Your task to perform on an android device: install app "HBO Max: Stream TV & Movies" Image 0: 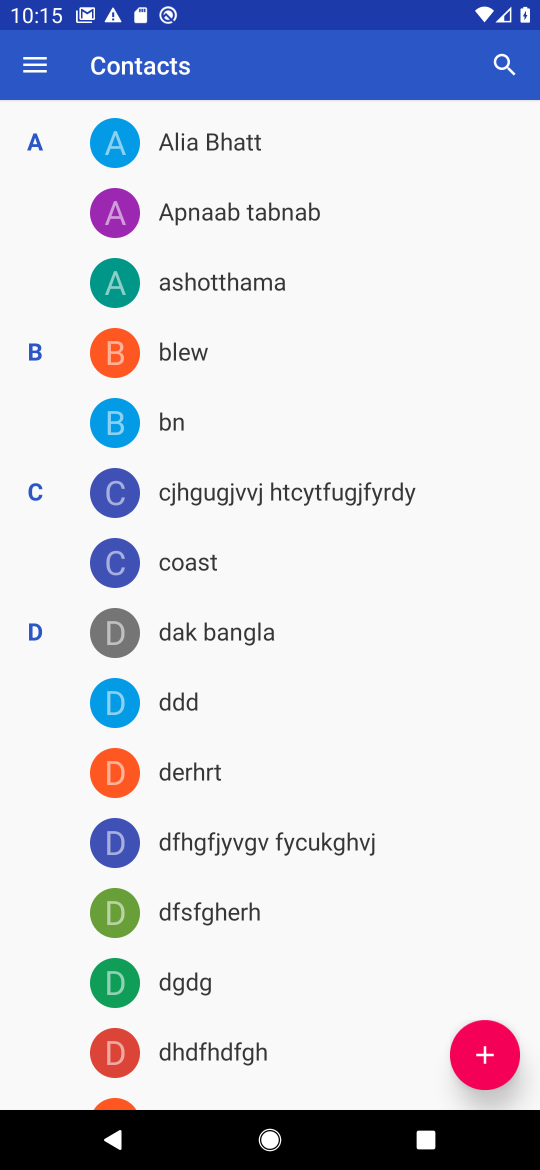
Step 0: press back button
Your task to perform on an android device: install app "HBO Max: Stream TV & Movies" Image 1: 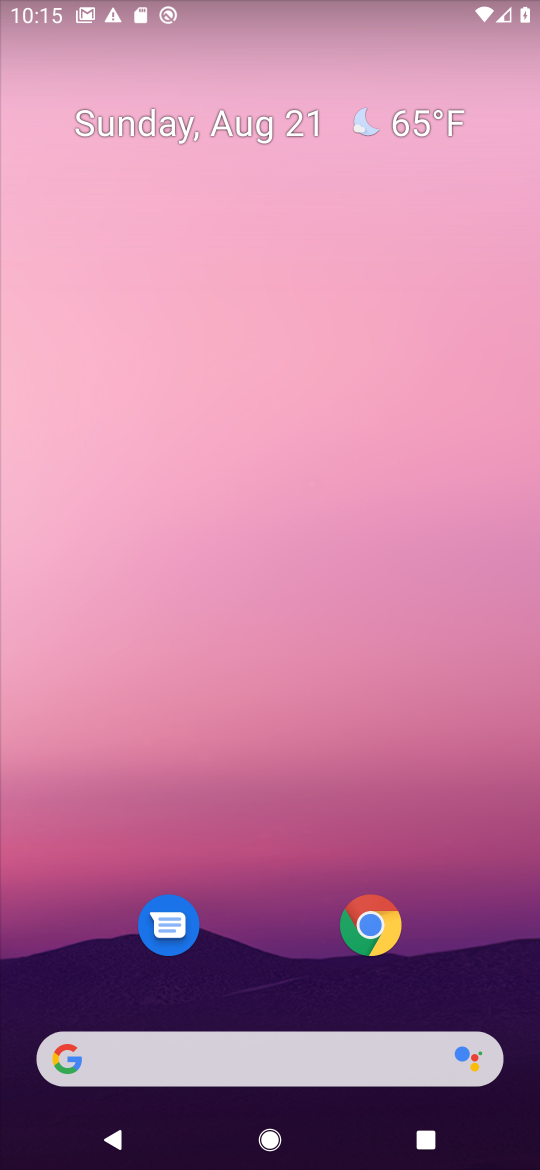
Step 1: drag from (249, 962) to (392, 120)
Your task to perform on an android device: install app "HBO Max: Stream TV & Movies" Image 2: 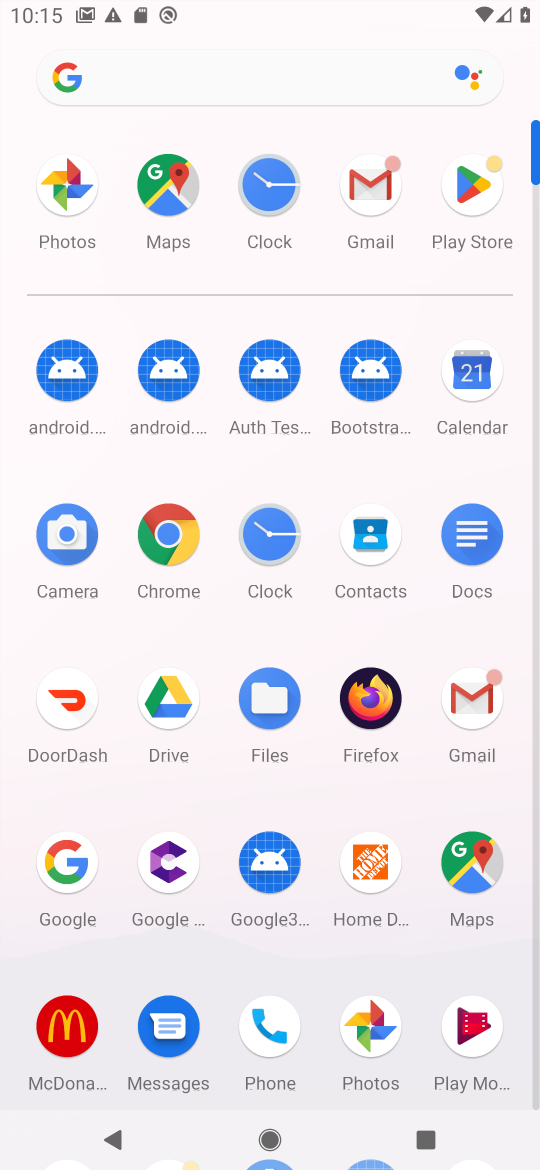
Step 2: click (477, 174)
Your task to perform on an android device: install app "HBO Max: Stream TV & Movies" Image 3: 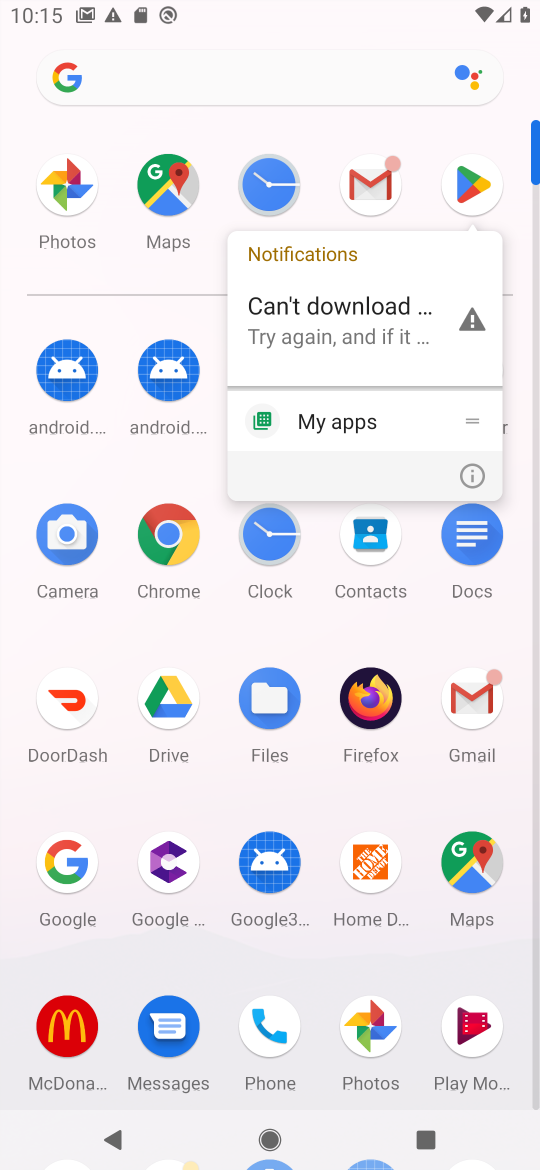
Step 3: click (496, 175)
Your task to perform on an android device: install app "HBO Max: Stream TV & Movies" Image 4: 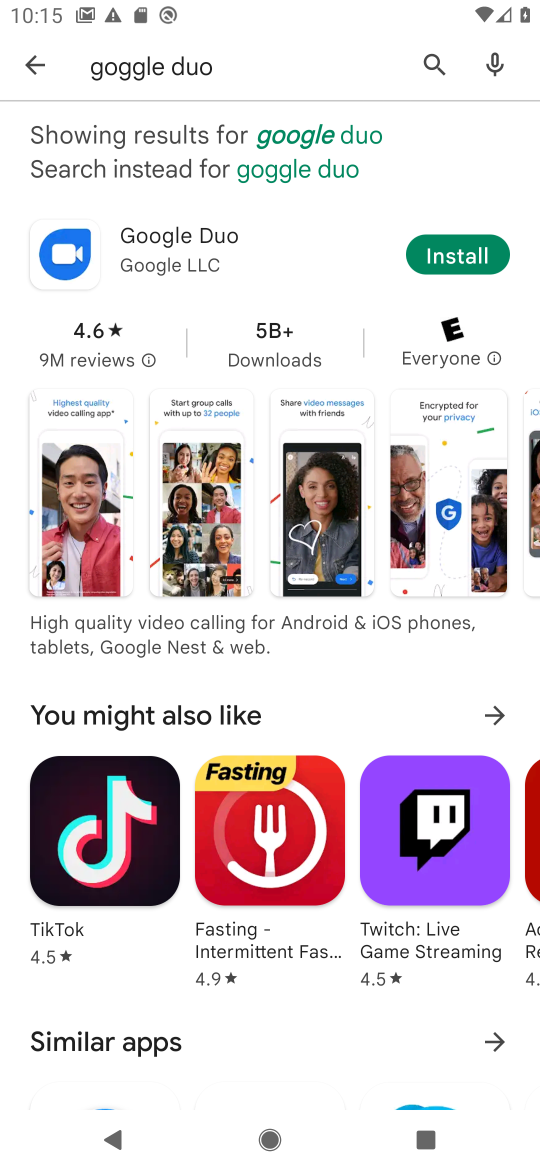
Step 4: click (429, 63)
Your task to perform on an android device: install app "HBO Max: Stream TV & Movies" Image 5: 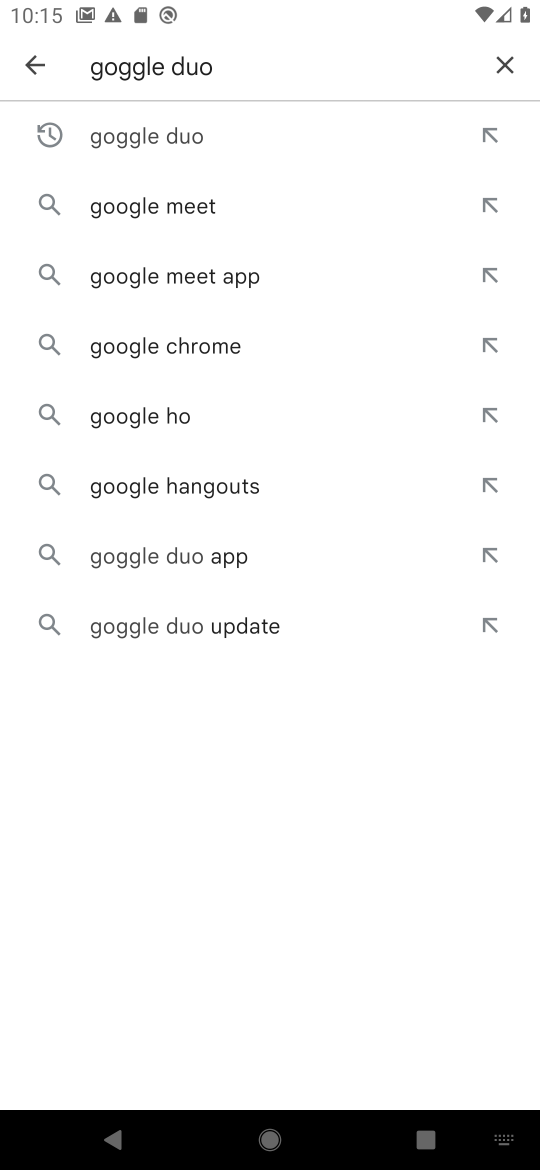
Step 5: click (515, 43)
Your task to perform on an android device: install app "HBO Max: Stream TV & Movies" Image 6: 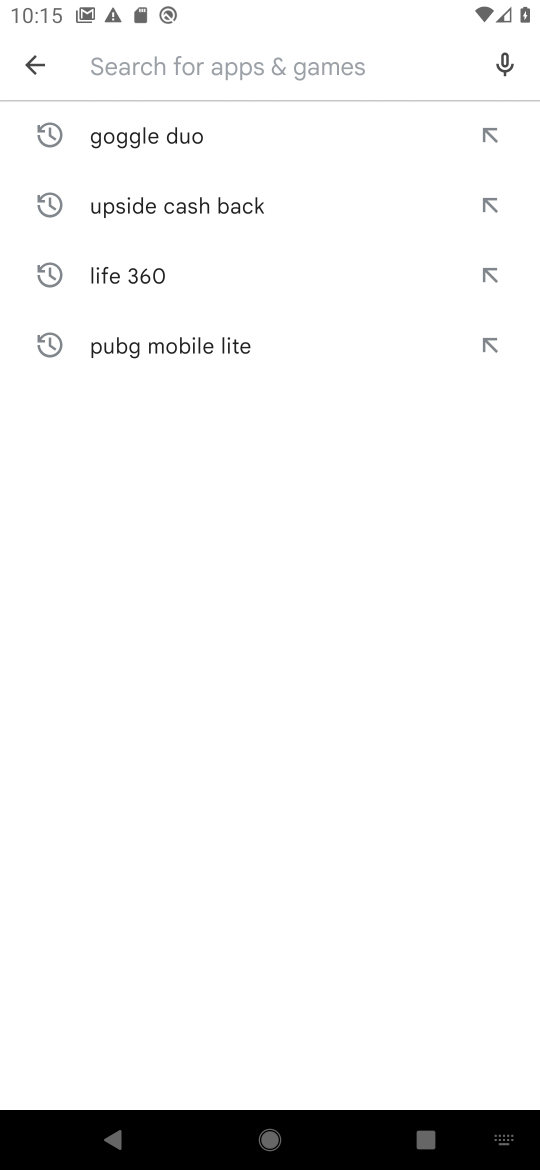
Step 6: click (231, 66)
Your task to perform on an android device: install app "HBO Max: Stream TV & Movies" Image 7: 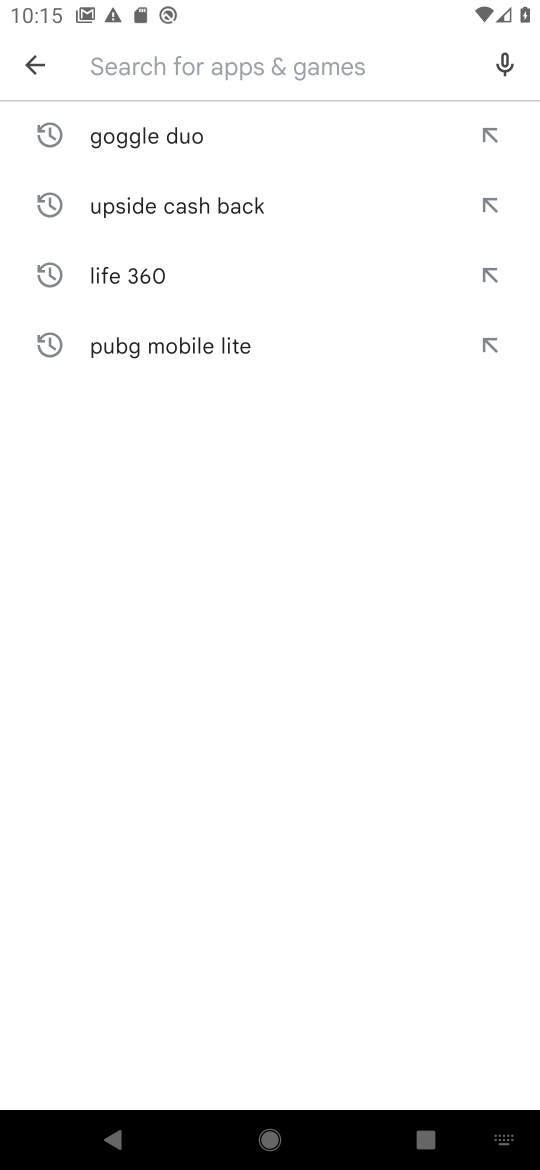
Step 7: type "hbo"
Your task to perform on an android device: install app "HBO Max: Stream TV & Movies" Image 8: 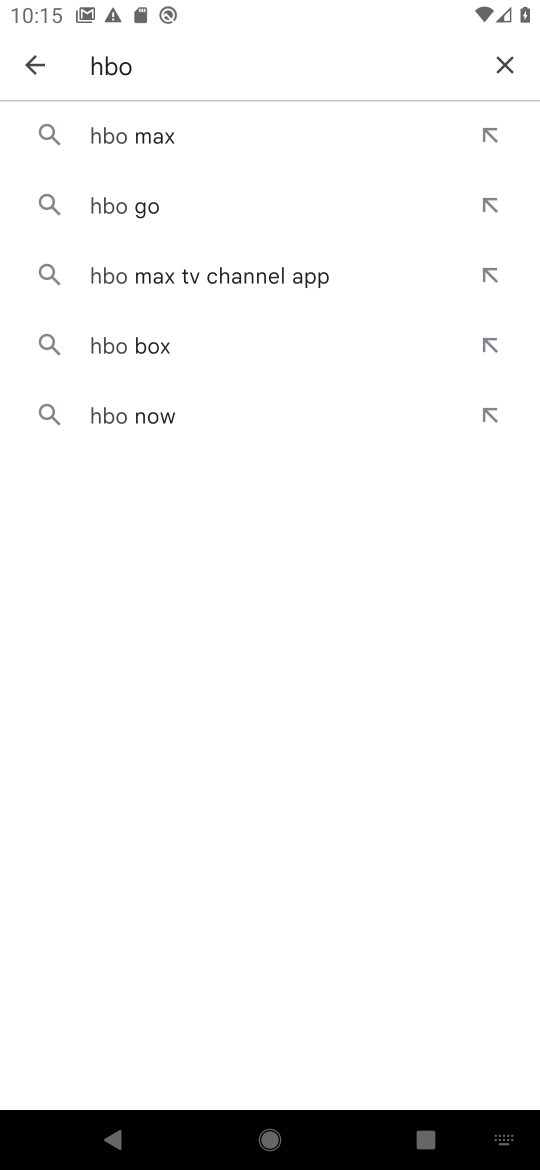
Step 8: click (199, 136)
Your task to perform on an android device: install app "HBO Max: Stream TV & Movies" Image 9: 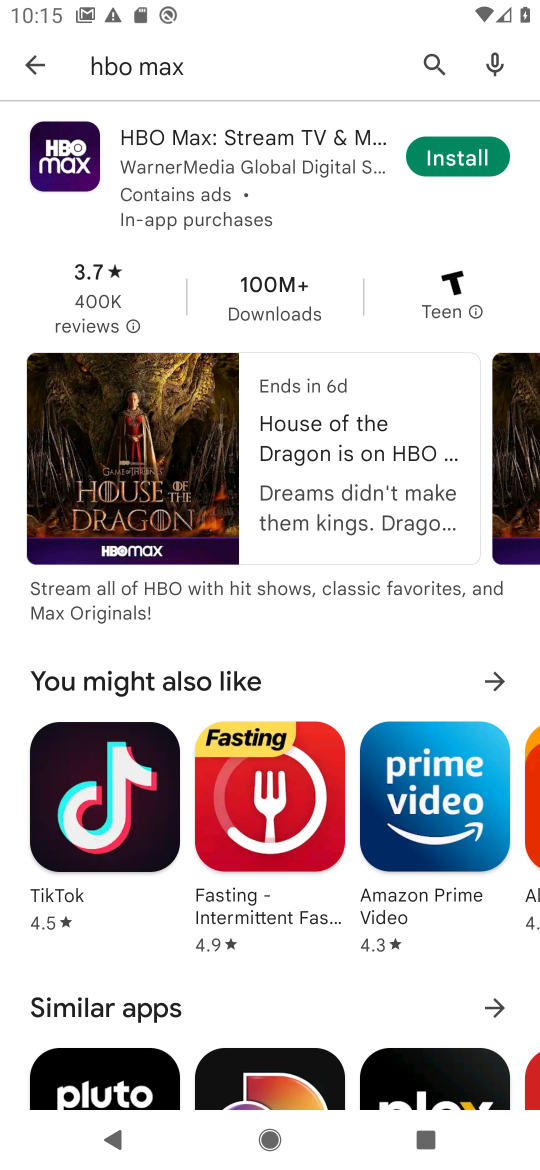
Step 9: click (449, 167)
Your task to perform on an android device: install app "HBO Max: Stream TV & Movies" Image 10: 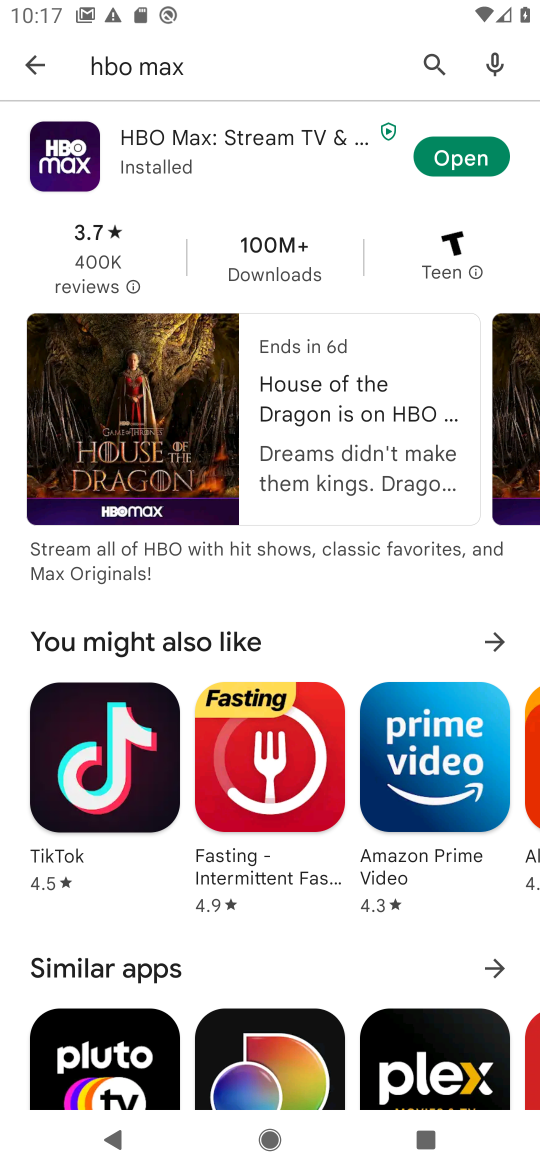
Step 10: task complete